Your task to perform on an android device: Go to network settings Image 0: 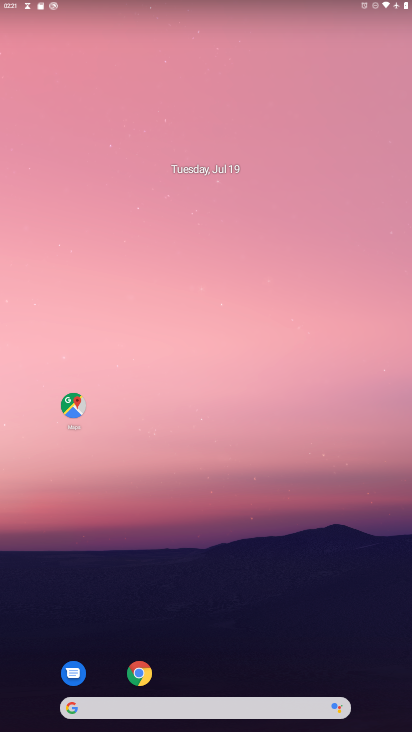
Step 0: drag from (227, 597) to (238, 360)
Your task to perform on an android device: Go to network settings Image 1: 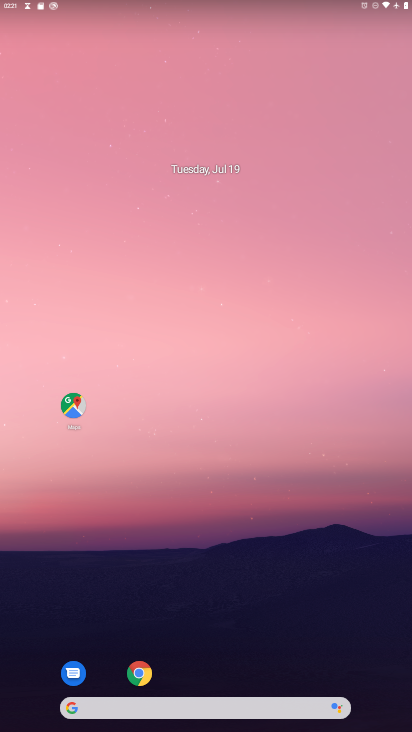
Step 1: drag from (228, 656) to (234, 381)
Your task to perform on an android device: Go to network settings Image 2: 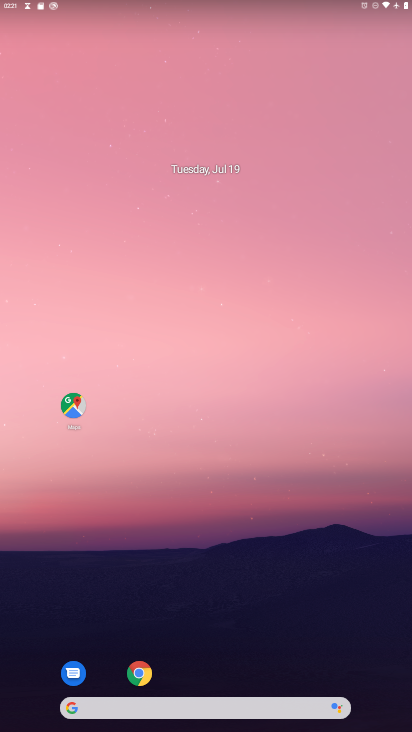
Step 2: drag from (239, 684) to (225, 318)
Your task to perform on an android device: Go to network settings Image 3: 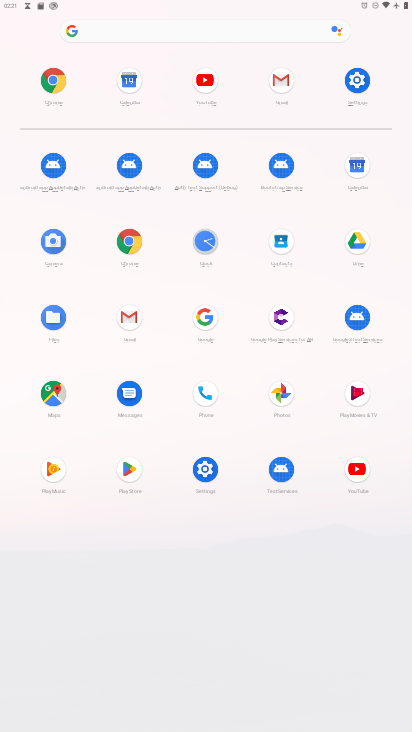
Step 3: click (359, 77)
Your task to perform on an android device: Go to network settings Image 4: 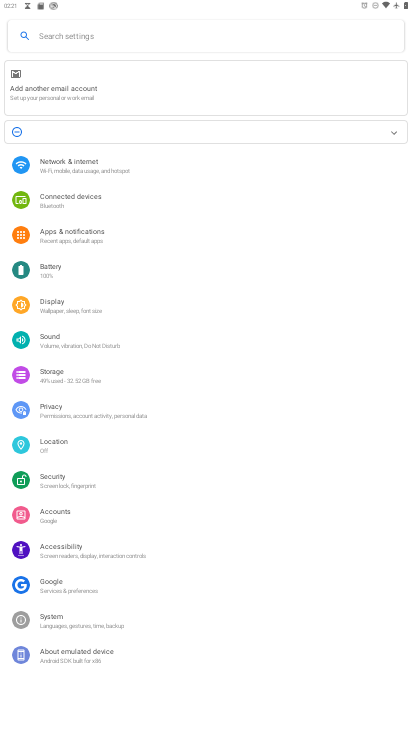
Step 4: click (122, 156)
Your task to perform on an android device: Go to network settings Image 5: 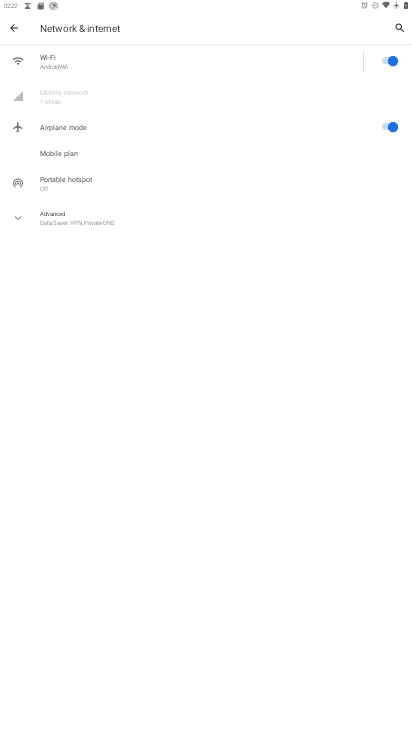
Step 5: task complete